Your task to perform on an android device: Go to privacy settings Image 0: 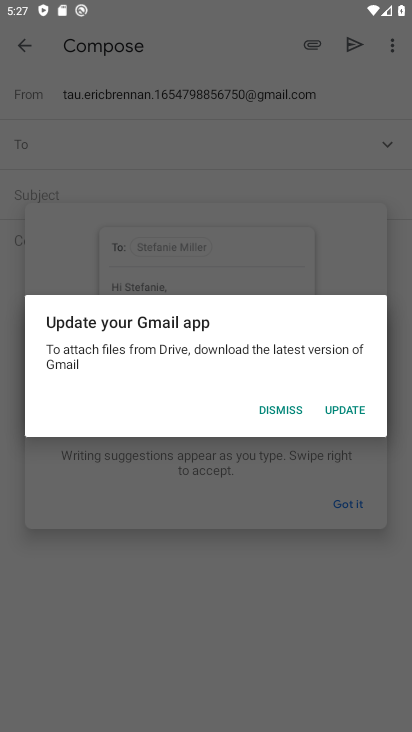
Step 0: drag from (190, 14) to (178, 608)
Your task to perform on an android device: Go to privacy settings Image 1: 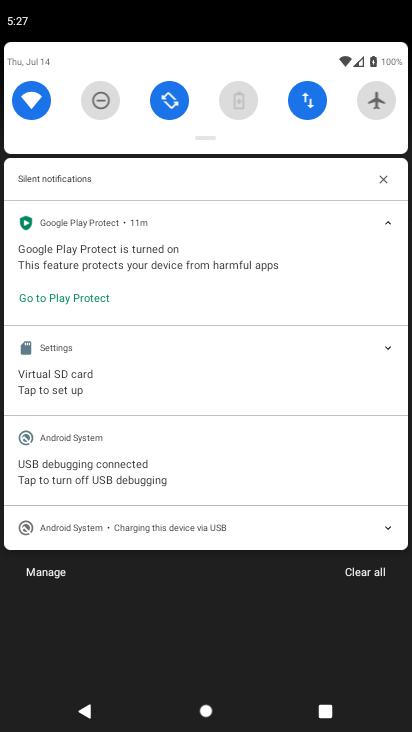
Step 1: drag from (212, 75) to (186, 636)
Your task to perform on an android device: Go to privacy settings Image 2: 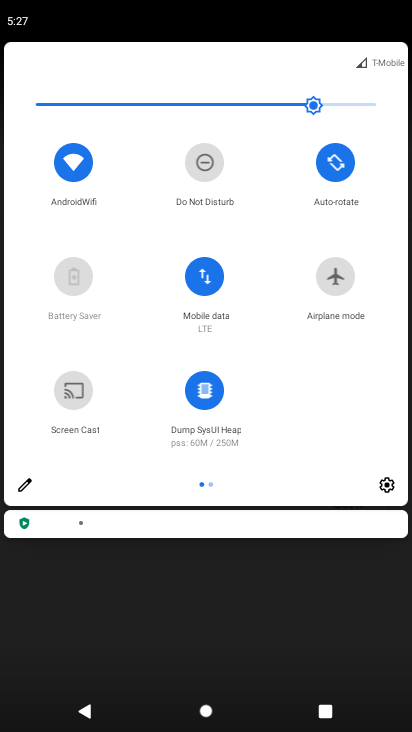
Step 2: click (387, 492)
Your task to perform on an android device: Go to privacy settings Image 3: 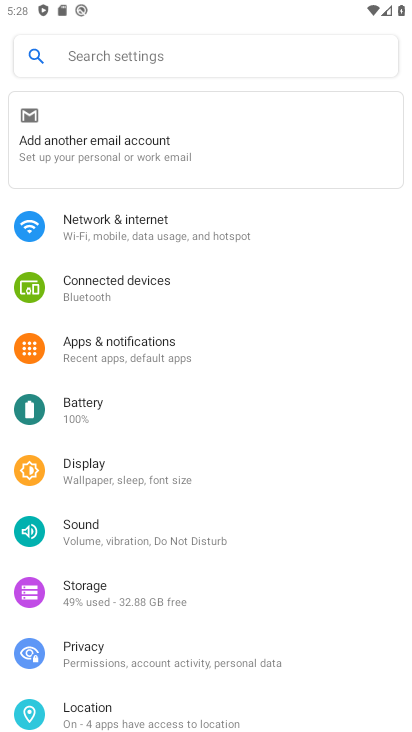
Step 3: click (85, 656)
Your task to perform on an android device: Go to privacy settings Image 4: 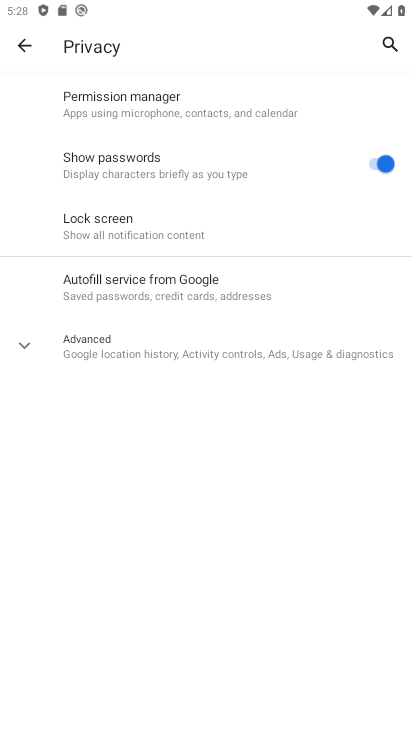
Step 4: task complete